Your task to perform on an android device: see sites visited before in the chrome app Image 0: 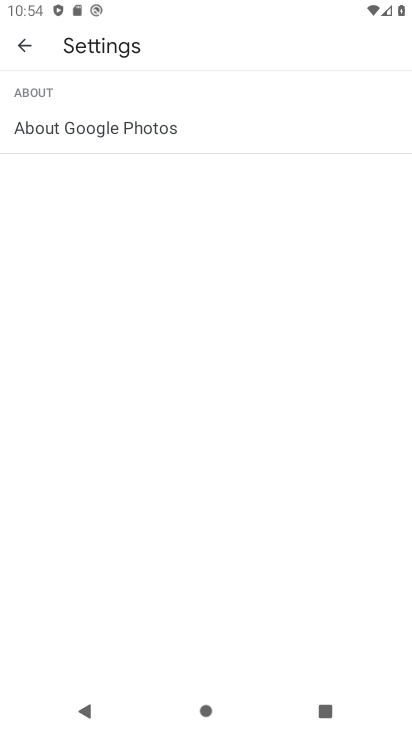
Step 0: press home button
Your task to perform on an android device: see sites visited before in the chrome app Image 1: 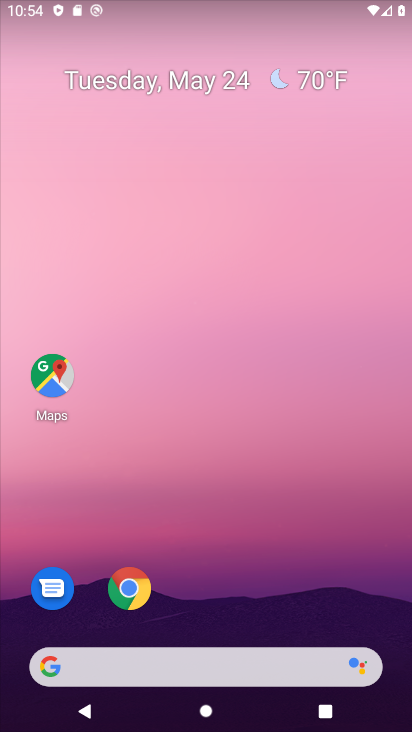
Step 1: click (130, 584)
Your task to perform on an android device: see sites visited before in the chrome app Image 2: 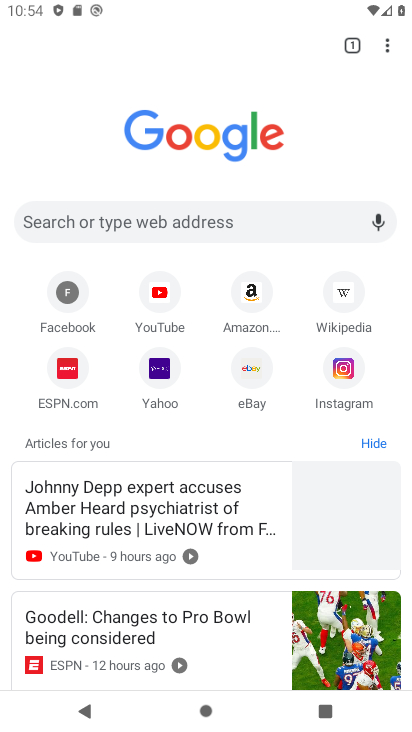
Step 2: click (390, 42)
Your task to perform on an android device: see sites visited before in the chrome app Image 3: 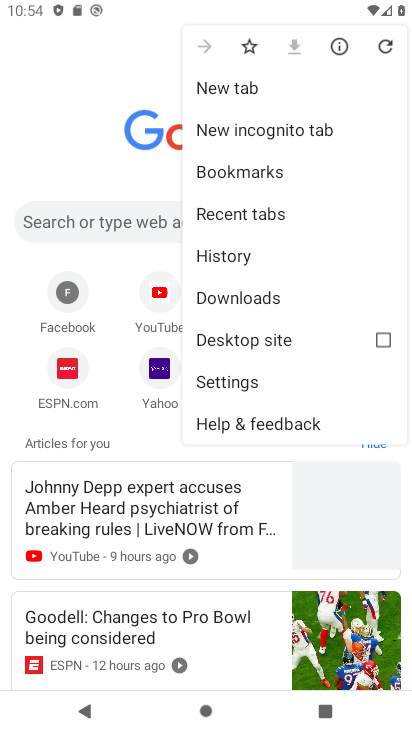
Step 3: click (263, 252)
Your task to perform on an android device: see sites visited before in the chrome app Image 4: 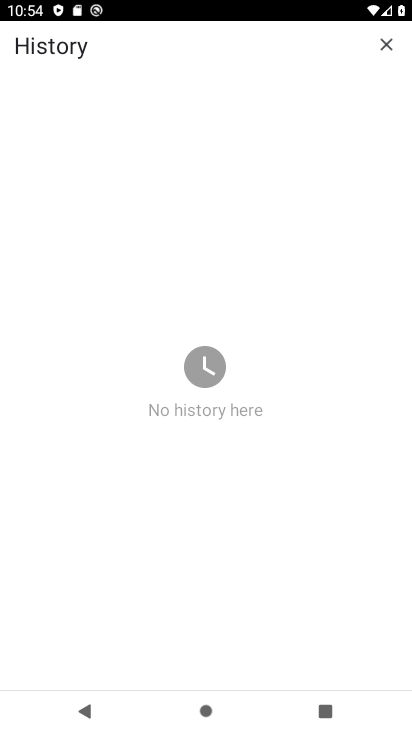
Step 4: task complete